Your task to perform on an android device: toggle pop-ups in chrome Image 0: 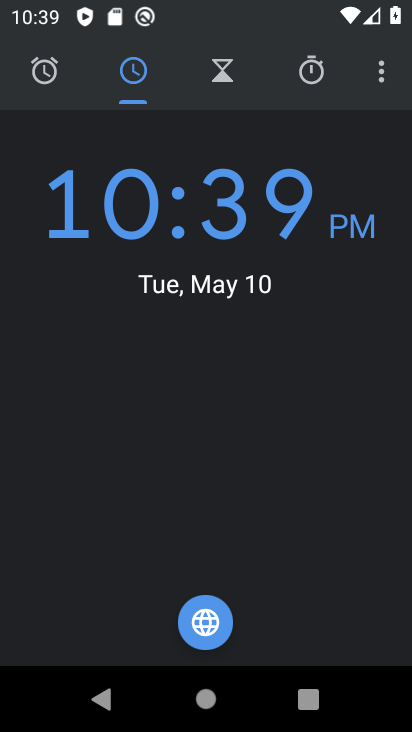
Step 0: press home button
Your task to perform on an android device: toggle pop-ups in chrome Image 1: 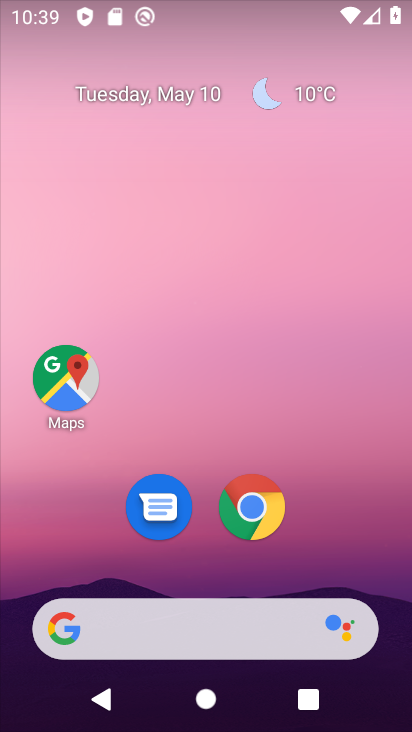
Step 1: click (265, 515)
Your task to perform on an android device: toggle pop-ups in chrome Image 2: 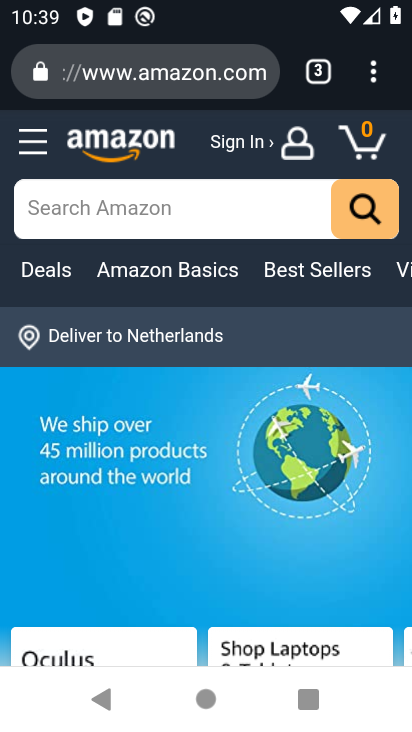
Step 2: click (373, 81)
Your task to perform on an android device: toggle pop-ups in chrome Image 3: 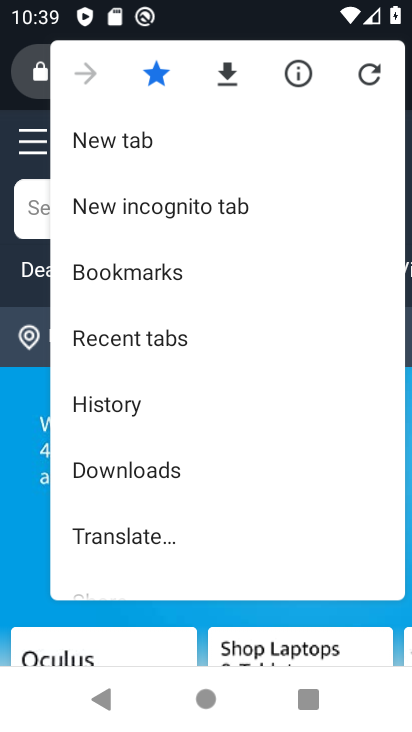
Step 3: drag from (157, 527) to (157, 259)
Your task to perform on an android device: toggle pop-ups in chrome Image 4: 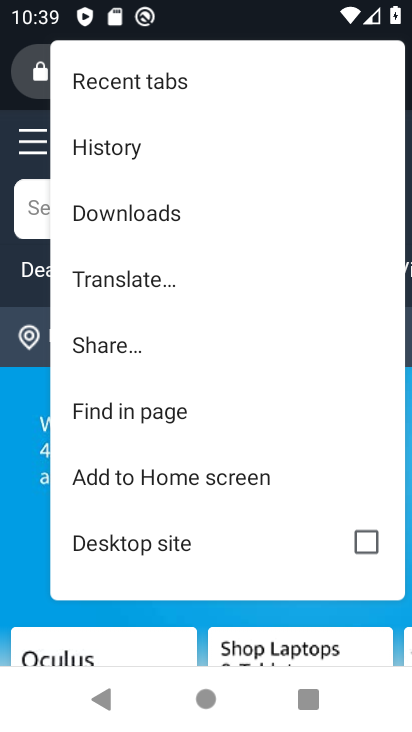
Step 4: drag from (147, 526) to (159, 129)
Your task to perform on an android device: toggle pop-ups in chrome Image 5: 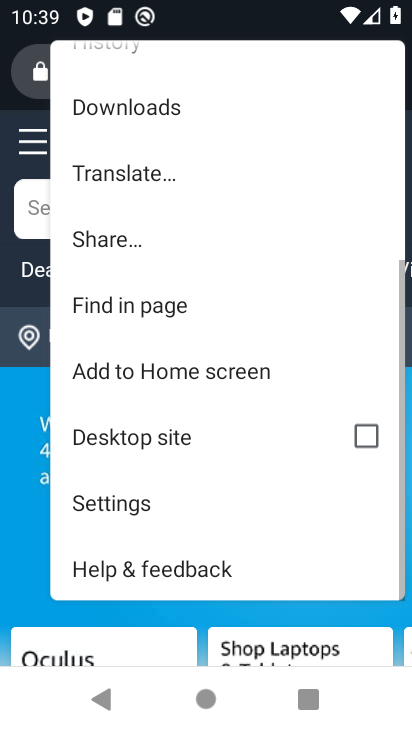
Step 5: click (123, 502)
Your task to perform on an android device: toggle pop-ups in chrome Image 6: 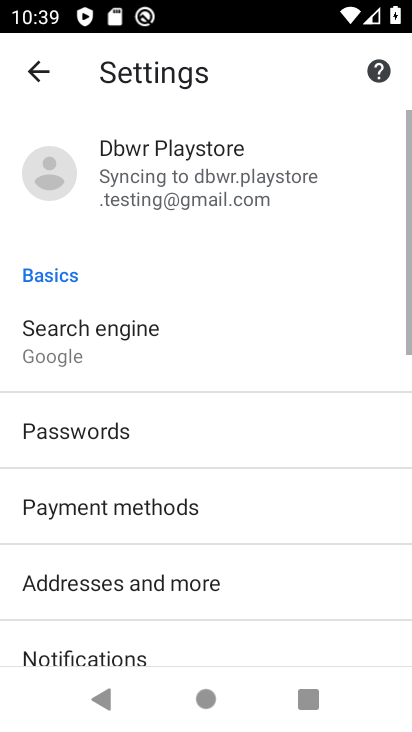
Step 6: drag from (145, 636) to (177, 267)
Your task to perform on an android device: toggle pop-ups in chrome Image 7: 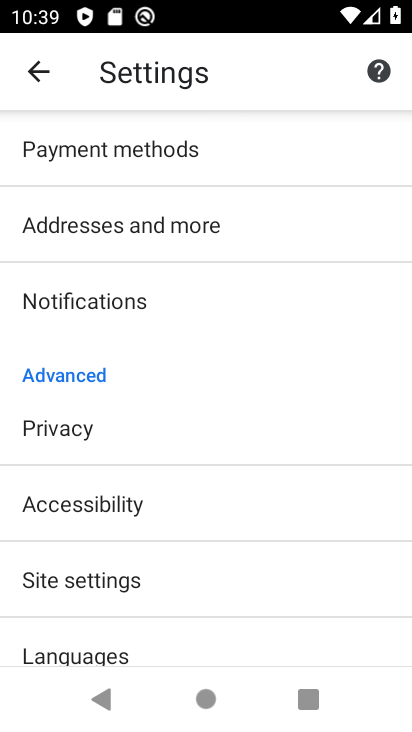
Step 7: drag from (131, 632) to (139, 292)
Your task to perform on an android device: toggle pop-ups in chrome Image 8: 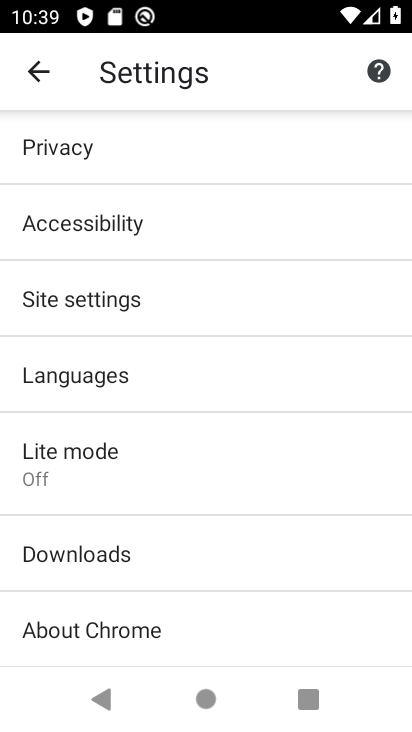
Step 8: click (95, 296)
Your task to perform on an android device: toggle pop-ups in chrome Image 9: 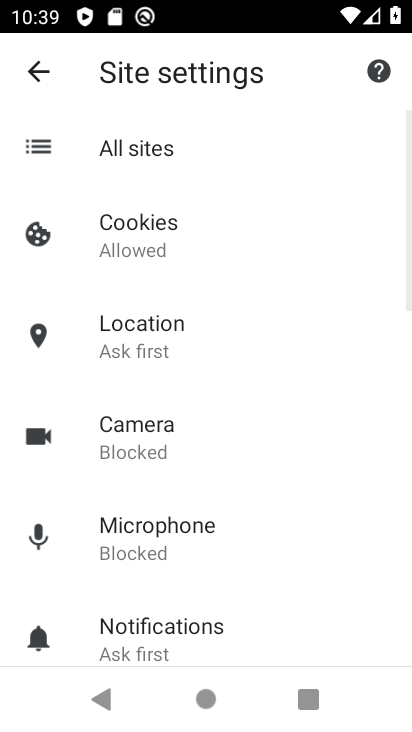
Step 9: drag from (167, 607) to (176, 285)
Your task to perform on an android device: toggle pop-ups in chrome Image 10: 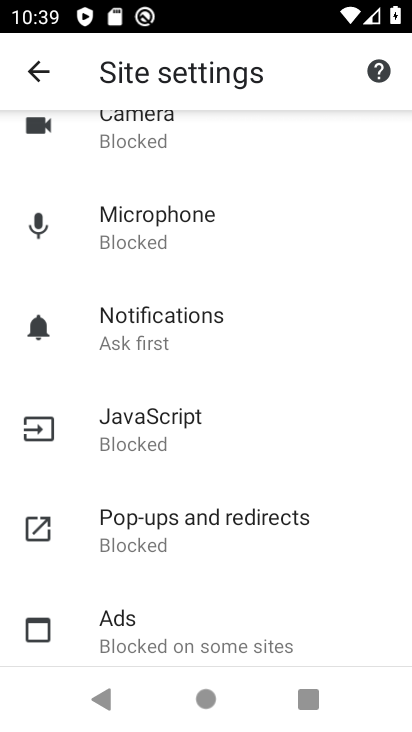
Step 10: click (158, 516)
Your task to perform on an android device: toggle pop-ups in chrome Image 11: 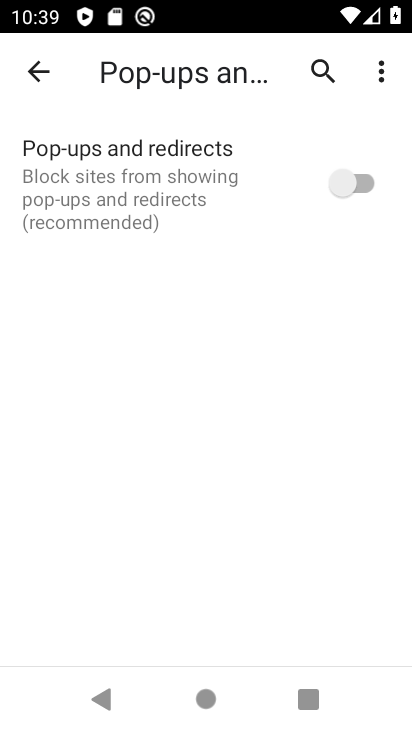
Step 11: click (358, 182)
Your task to perform on an android device: toggle pop-ups in chrome Image 12: 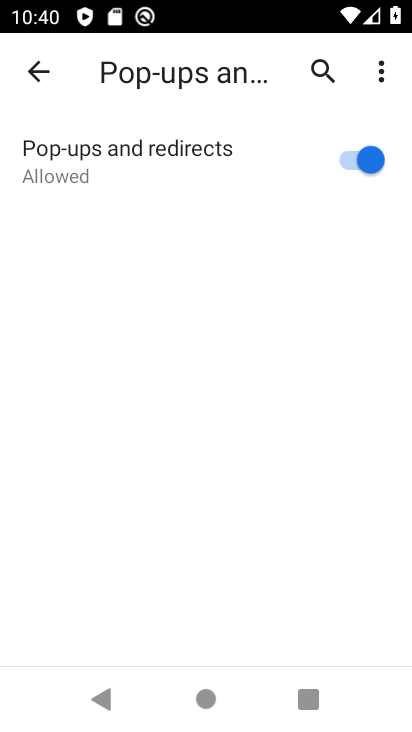
Step 12: task complete